Your task to perform on an android device: turn on improve location accuracy Image 0: 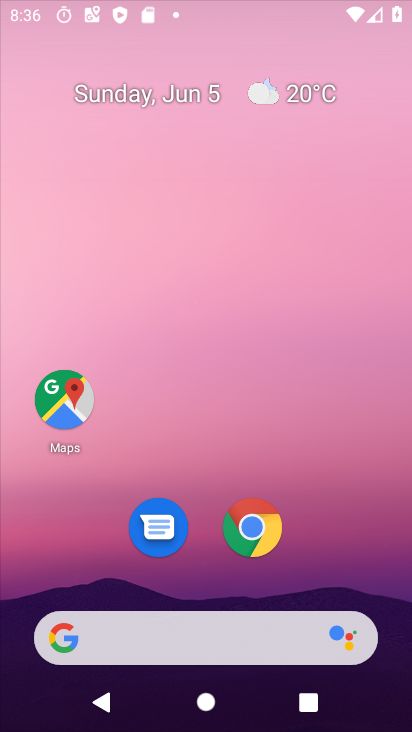
Step 0: drag from (353, 575) to (314, 0)
Your task to perform on an android device: turn on improve location accuracy Image 1: 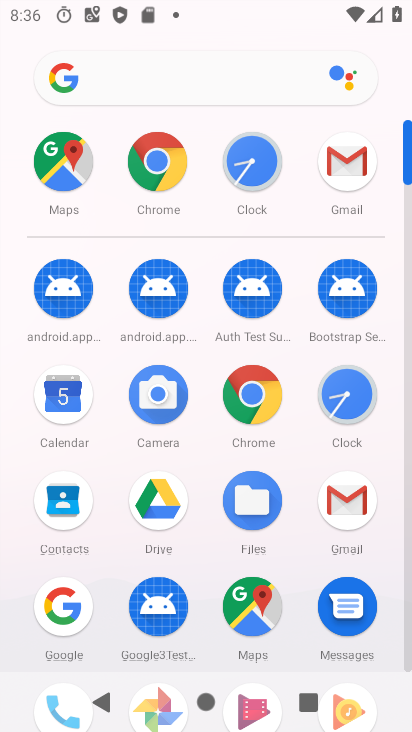
Step 1: drag from (394, 562) to (397, 96)
Your task to perform on an android device: turn on improve location accuracy Image 2: 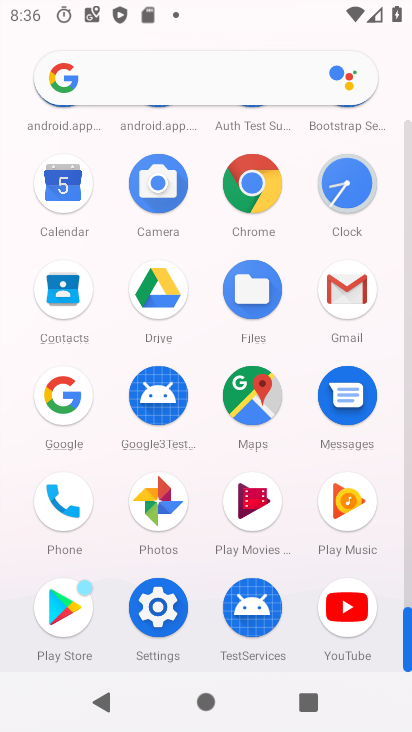
Step 2: click (175, 613)
Your task to perform on an android device: turn on improve location accuracy Image 3: 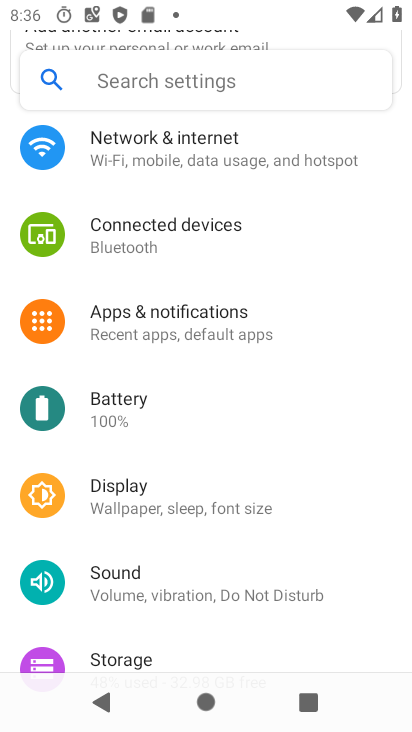
Step 3: drag from (199, 600) to (331, 88)
Your task to perform on an android device: turn on improve location accuracy Image 4: 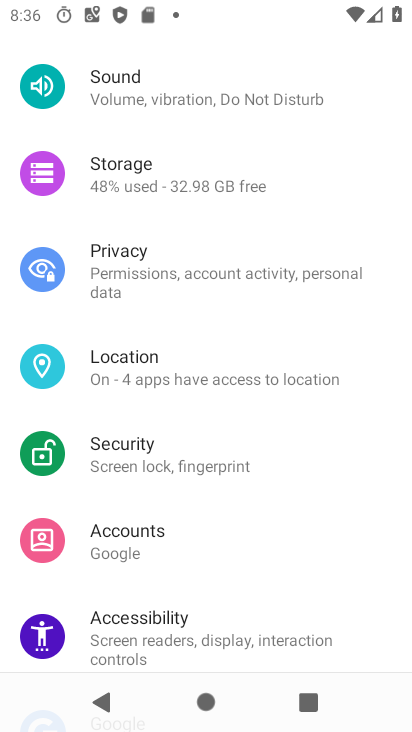
Step 4: click (133, 371)
Your task to perform on an android device: turn on improve location accuracy Image 5: 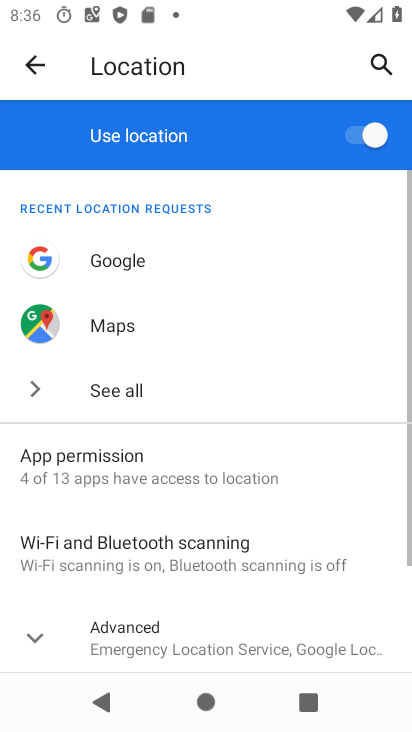
Step 5: drag from (309, 506) to (356, 193)
Your task to perform on an android device: turn on improve location accuracy Image 6: 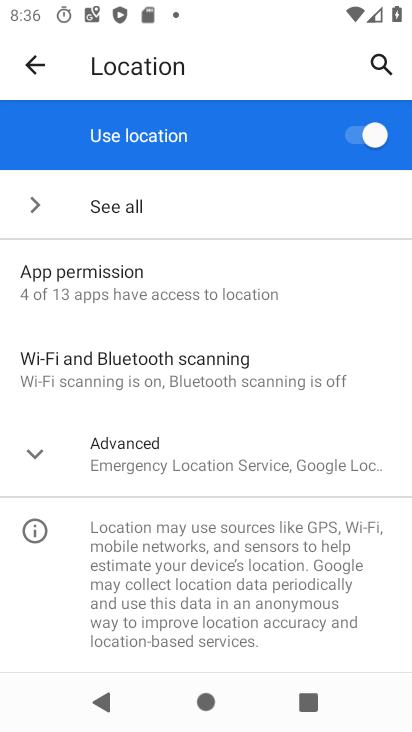
Step 6: click (164, 461)
Your task to perform on an android device: turn on improve location accuracy Image 7: 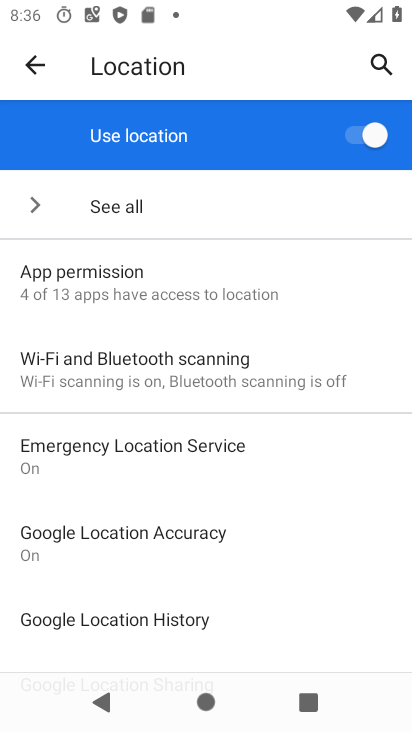
Step 7: click (157, 553)
Your task to perform on an android device: turn on improve location accuracy Image 8: 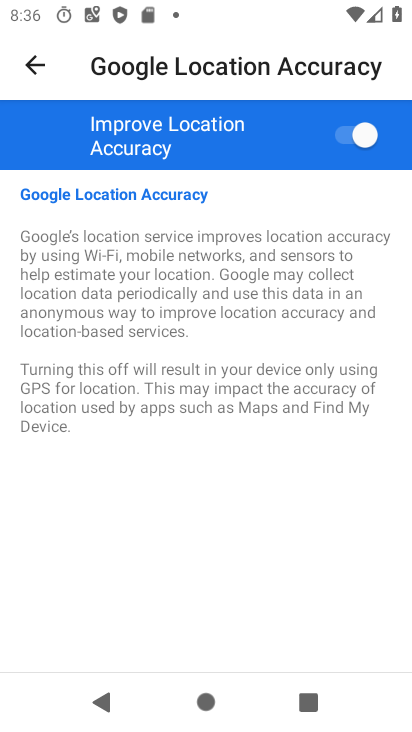
Step 8: task complete